Your task to perform on an android device: turn off airplane mode Image 0: 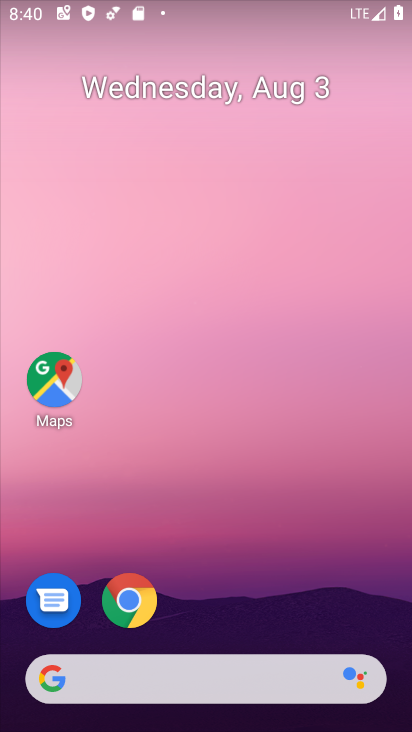
Step 0: drag from (227, 439) to (260, 27)
Your task to perform on an android device: turn off airplane mode Image 1: 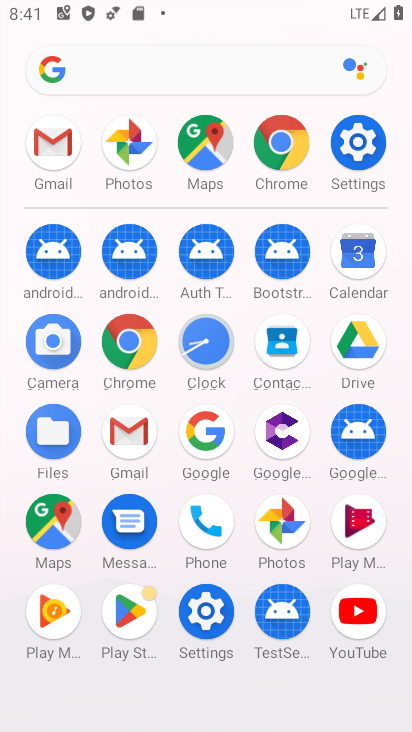
Step 1: click (210, 616)
Your task to perform on an android device: turn off airplane mode Image 2: 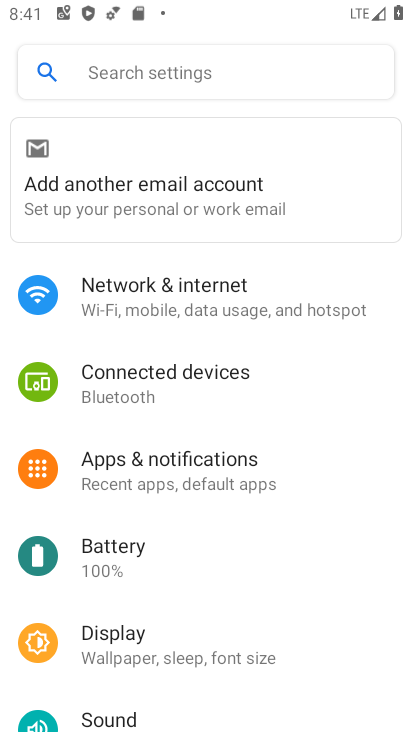
Step 2: click (172, 308)
Your task to perform on an android device: turn off airplane mode Image 3: 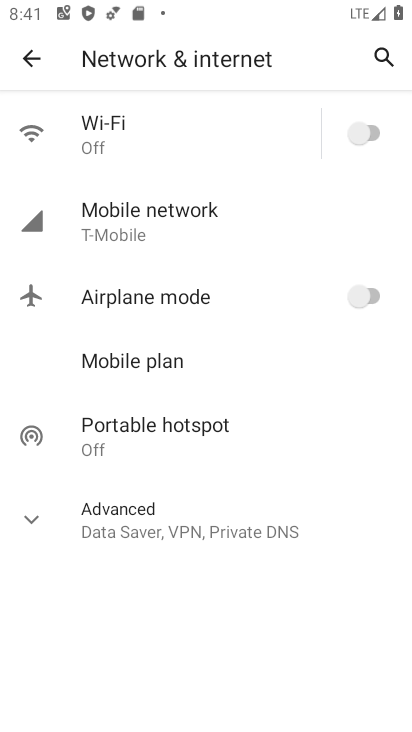
Step 3: task complete